Your task to perform on an android device: Is it going to rain this weekend? Image 0: 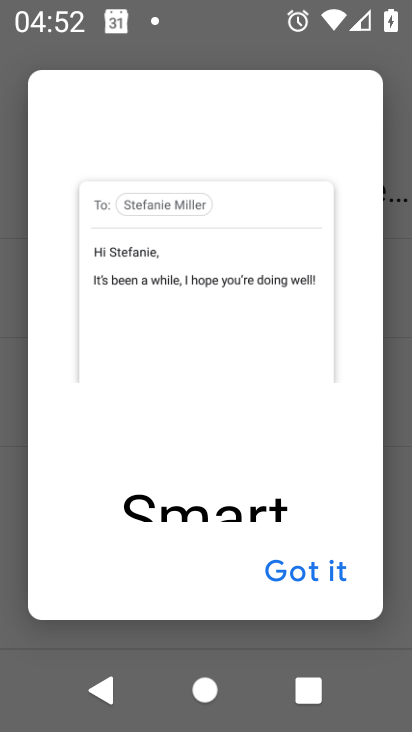
Step 0: press home button
Your task to perform on an android device: Is it going to rain this weekend? Image 1: 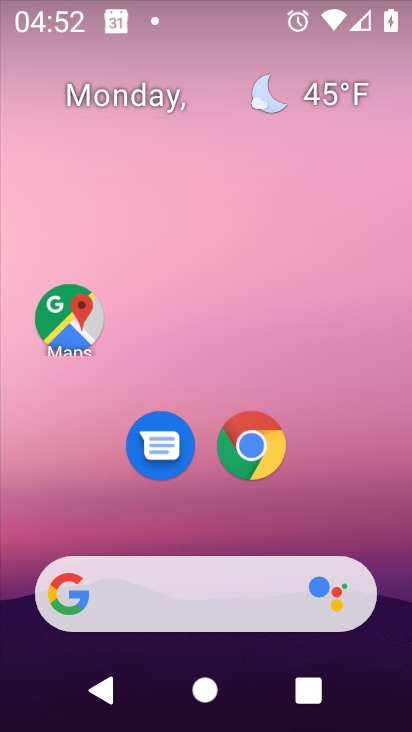
Step 1: click (200, 591)
Your task to perform on an android device: Is it going to rain this weekend? Image 2: 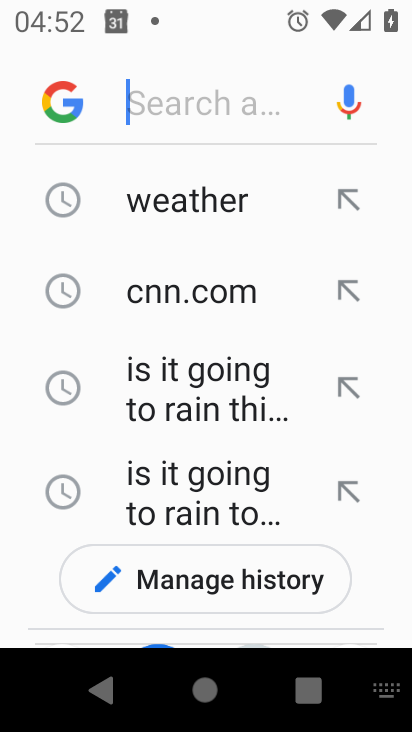
Step 2: type "is it going to rain this weekend"
Your task to perform on an android device: Is it going to rain this weekend? Image 3: 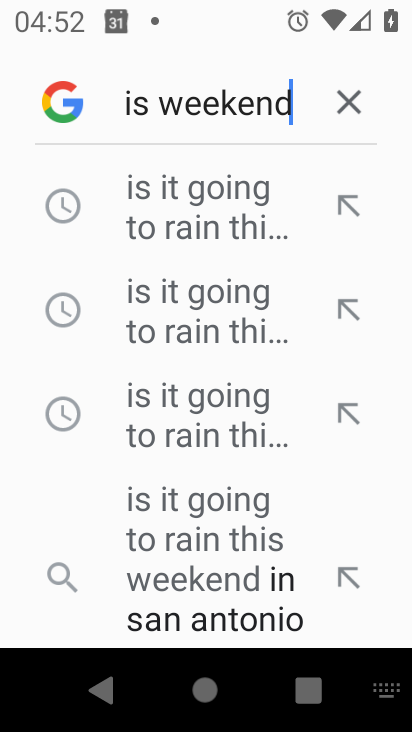
Step 3: click (154, 243)
Your task to perform on an android device: Is it going to rain this weekend? Image 4: 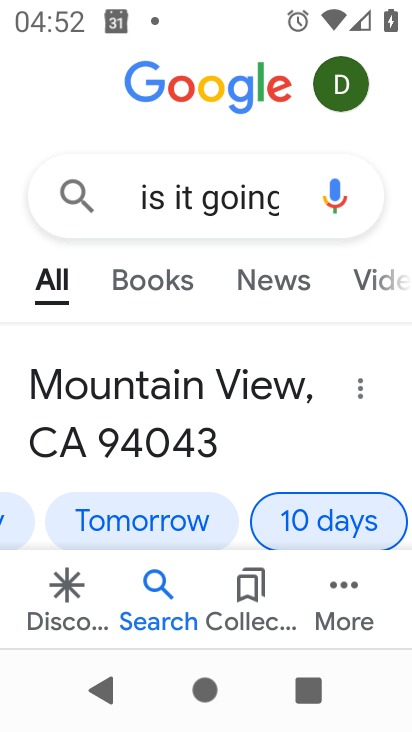
Step 4: task complete